Your task to perform on an android device: Open Google Maps Image 0: 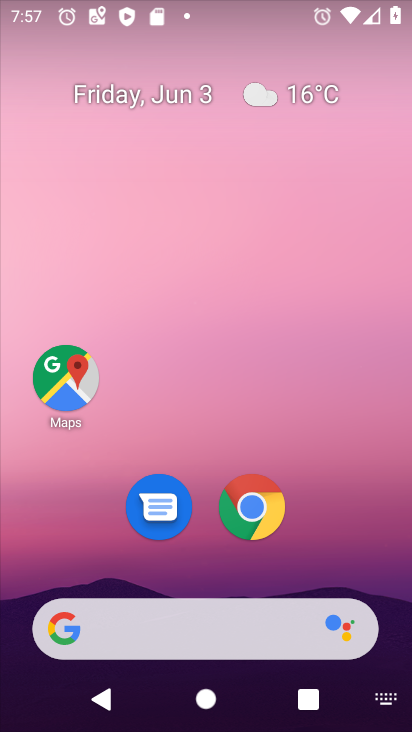
Step 0: click (67, 377)
Your task to perform on an android device: Open Google Maps Image 1: 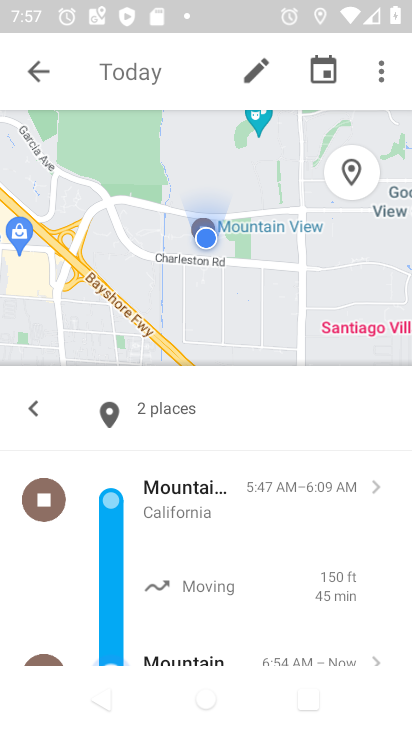
Step 1: task complete